Your task to perform on an android device: Open Google Chrome Image 0: 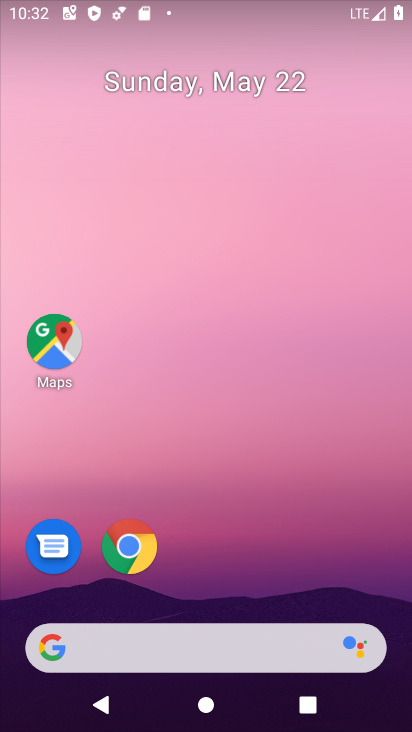
Step 0: drag from (156, 611) to (257, 134)
Your task to perform on an android device: Open Google Chrome Image 1: 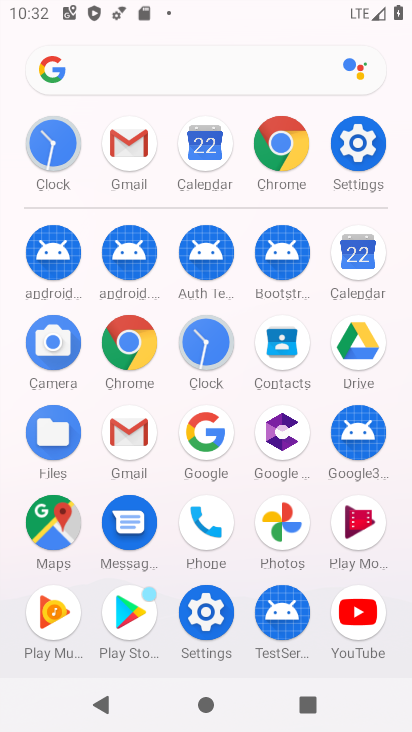
Step 1: click (272, 142)
Your task to perform on an android device: Open Google Chrome Image 2: 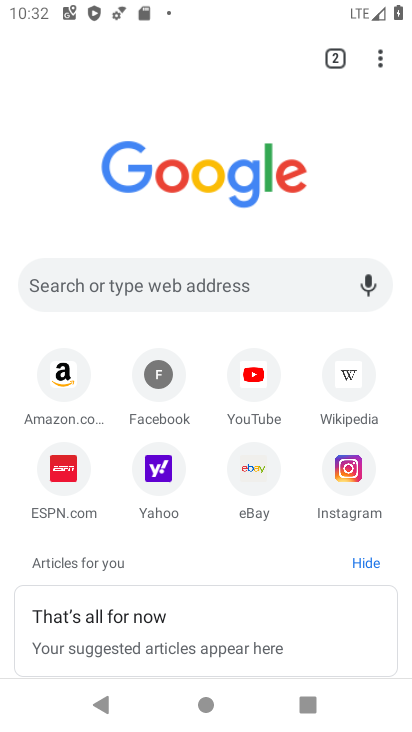
Step 2: task complete